Your task to perform on an android device: Open sound settings Image 0: 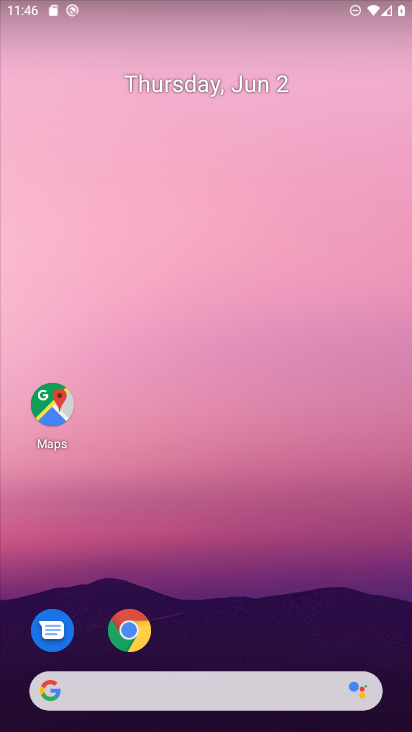
Step 0: drag from (277, 639) to (229, 280)
Your task to perform on an android device: Open sound settings Image 1: 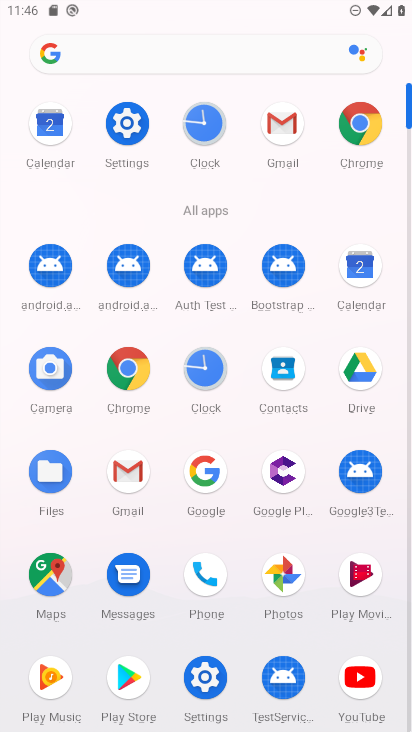
Step 1: click (117, 118)
Your task to perform on an android device: Open sound settings Image 2: 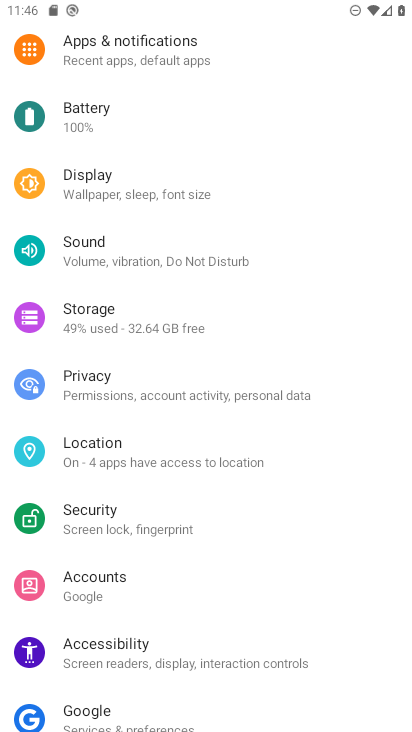
Step 2: click (154, 249)
Your task to perform on an android device: Open sound settings Image 3: 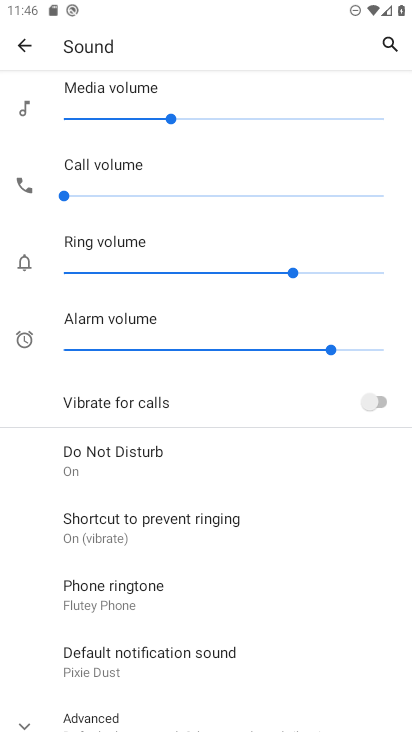
Step 3: task complete